Your task to perform on an android device: open a bookmark in the chrome app Image 0: 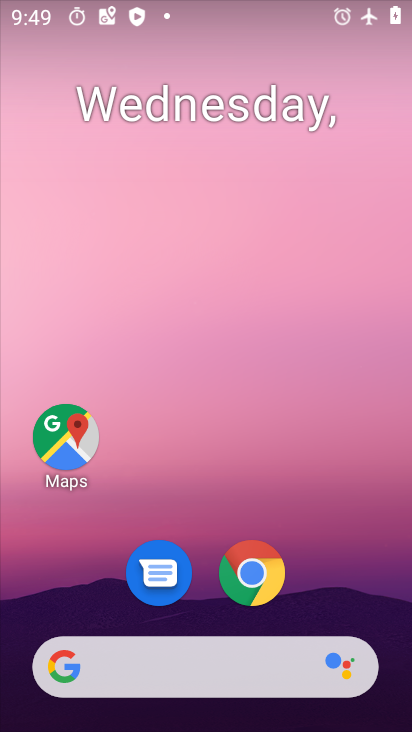
Step 0: click (265, 578)
Your task to perform on an android device: open a bookmark in the chrome app Image 1: 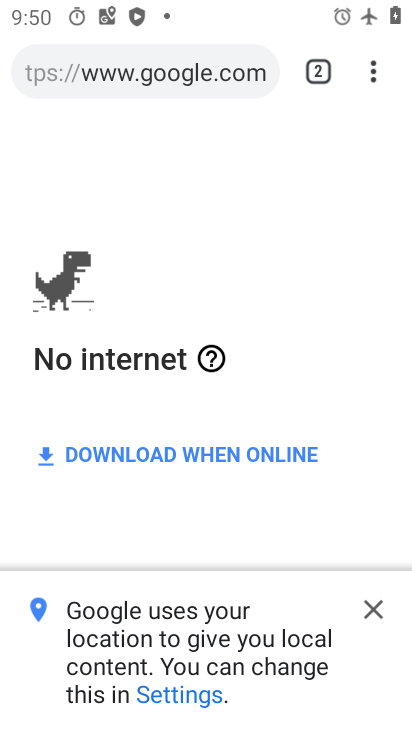
Step 1: click (371, 75)
Your task to perform on an android device: open a bookmark in the chrome app Image 2: 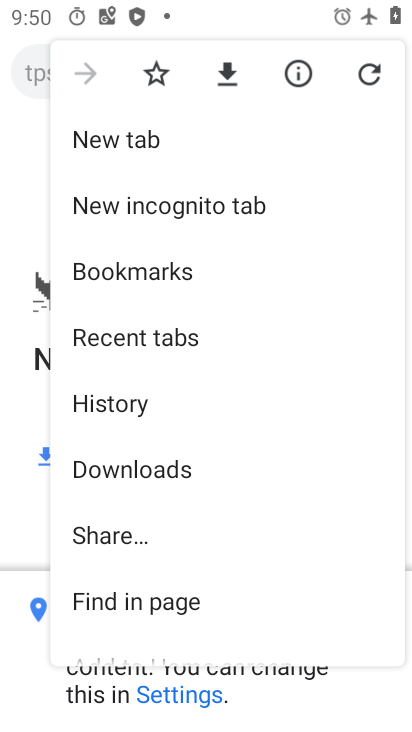
Step 2: click (182, 281)
Your task to perform on an android device: open a bookmark in the chrome app Image 3: 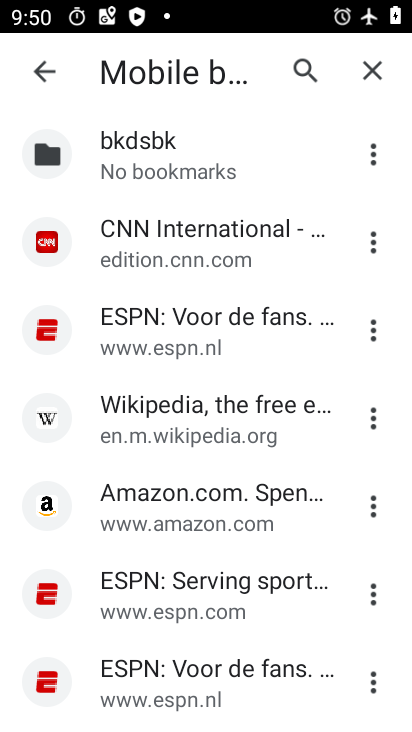
Step 3: click (190, 519)
Your task to perform on an android device: open a bookmark in the chrome app Image 4: 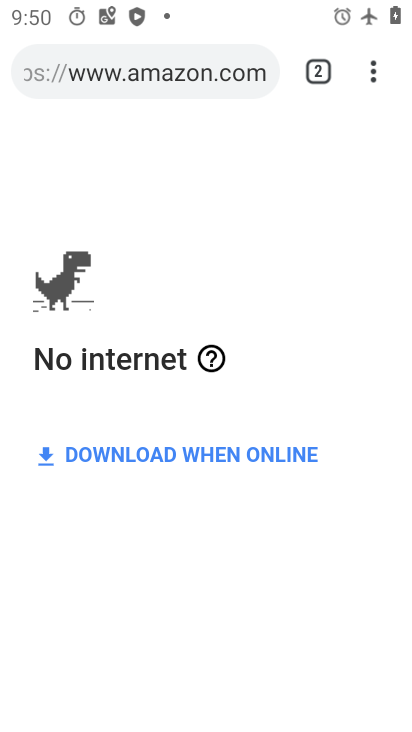
Step 4: task complete